Your task to perform on an android device: add a label to a message in the gmail app Image 0: 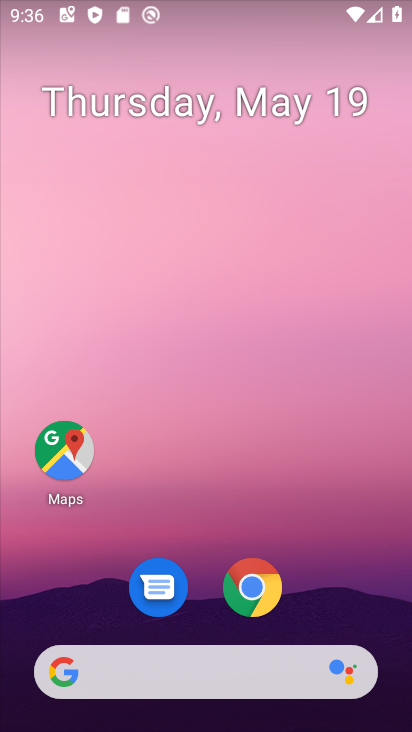
Step 0: drag from (256, 671) to (226, 241)
Your task to perform on an android device: add a label to a message in the gmail app Image 1: 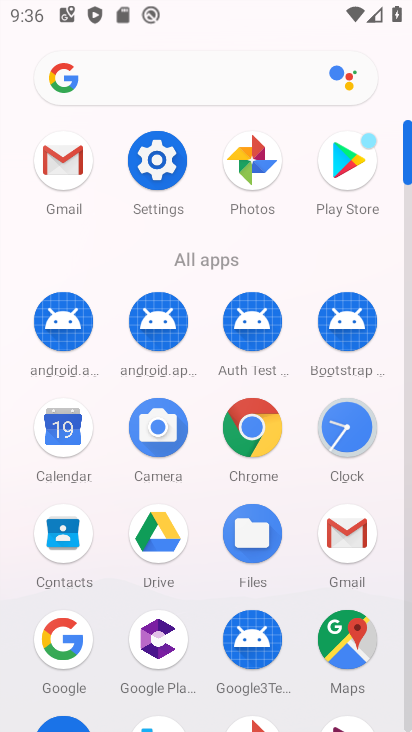
Step 1: click (71, 157)
Your task to perform on an android device: add a label to a message in the gmail app Image 2: 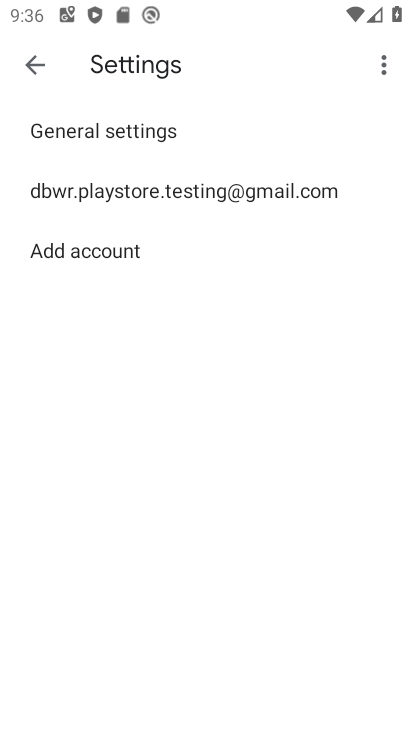
Step 2: click (28, 53)
Your task to perform on an android device: add a label to a message in the gmail app Image 3: 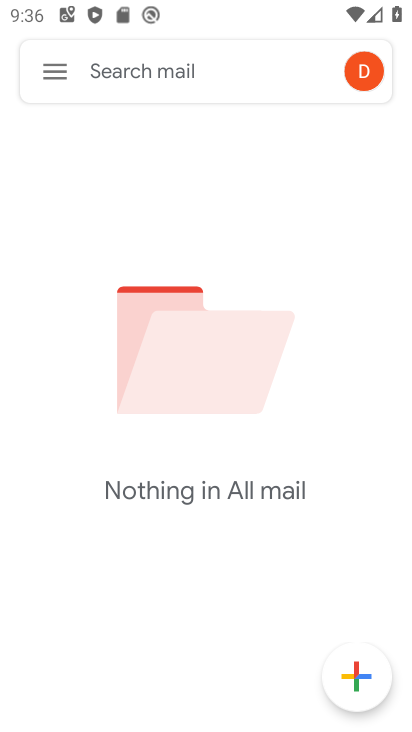
Step 3: click (50, 74)
Your task to perform on an android device: add a label to a message in the gmail app Image 4: 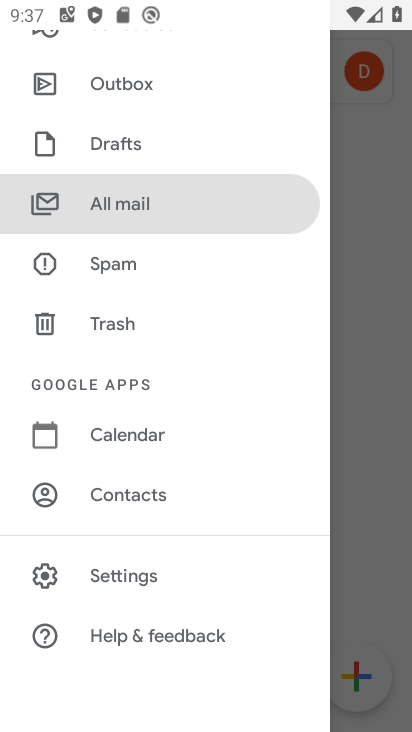
Step 4: click (117, 204)
Your task to perform on an android device: add a label to a message in the gmail app Image 5: 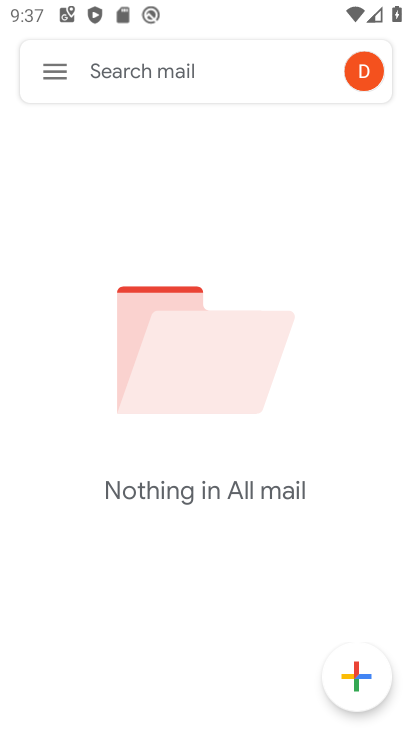
Step 5: task complete